Your task to perform on an android device: What's the weather? Image 0: 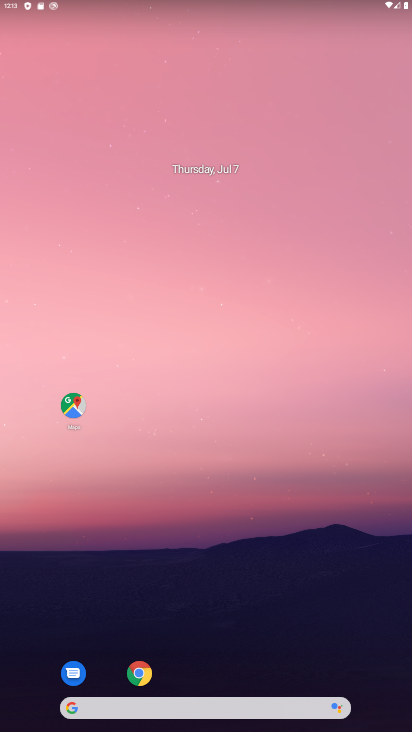
Step 0: click (179, 701)
Your task to perform on an android device: What's the weather? Image 1: 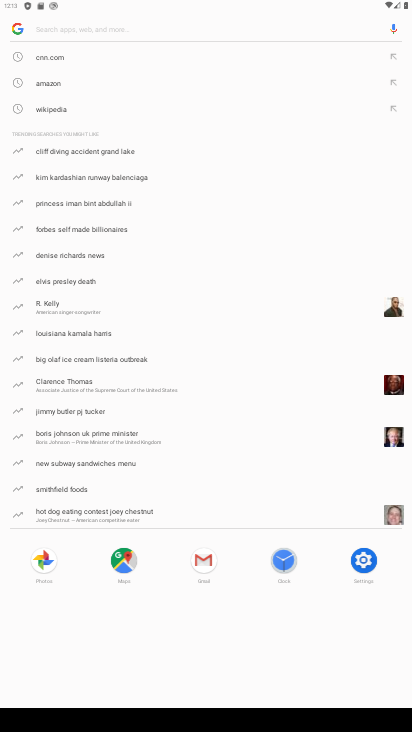
Step 1: type "weather"
Your task to perform on an android device: What's the weather? Image 2: 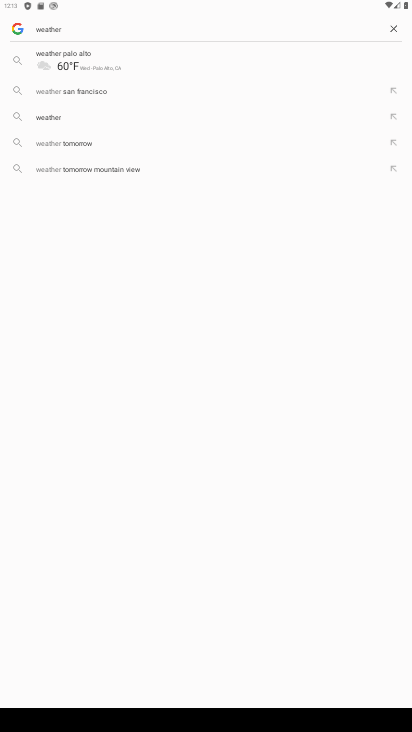
Step 2: click (161, 65)
Your task to perform on an android device: What's the weather? Image 3: 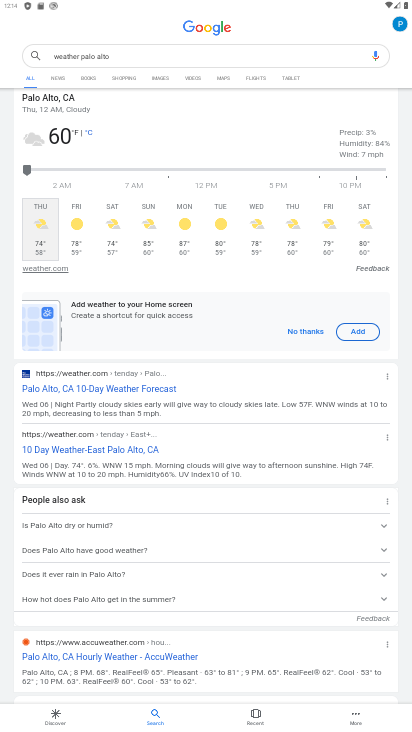
Step 3: task complete